Your task to perform on an android device: What is the news today? Image 0: 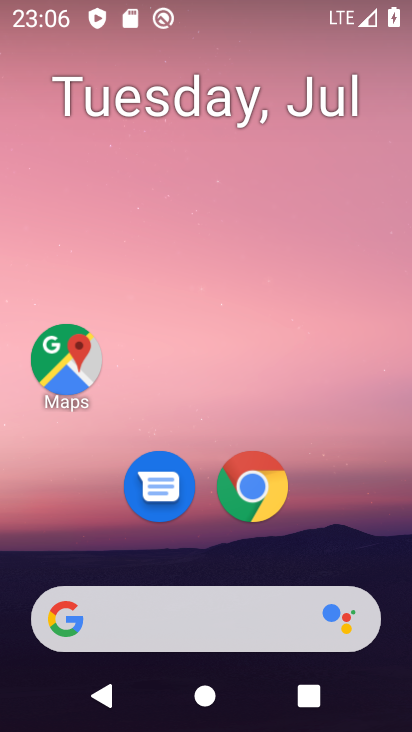
Step 0: press home button
Your task to perform on an android device: What is the news today? Image 1: 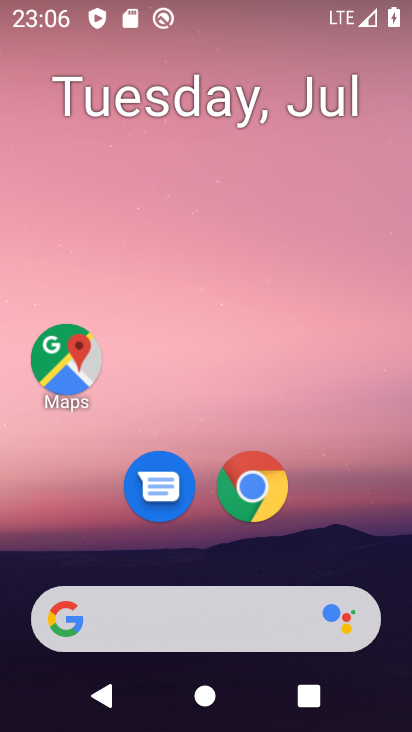
Step 1: drag from (1, 243) to (405, 325)
Your task to perform on an android device: What is the news today? Image 2: 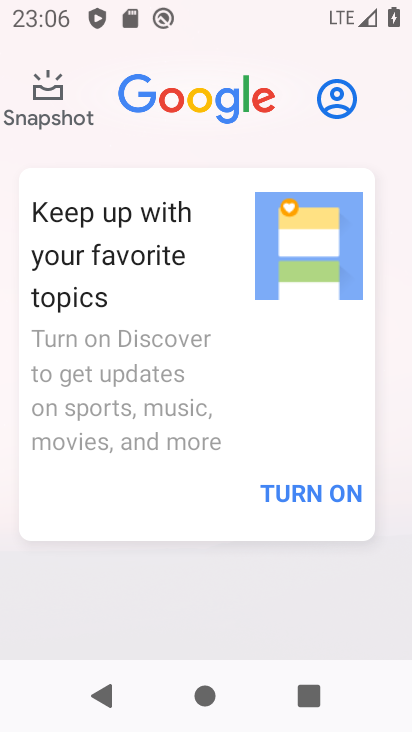
Step 2: drag from (251, 347) to (393, 569)
Your task to perform on an android device: What is the news today? Image 3: 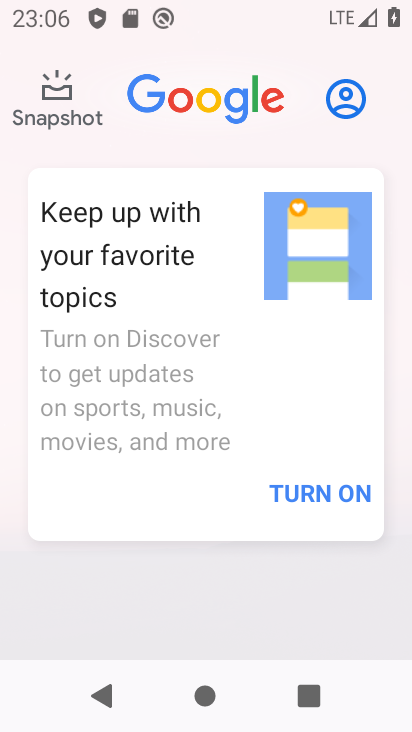
Step 3: click (307, 493)
Your task to perform on an android device: What is the news today? Image 4: 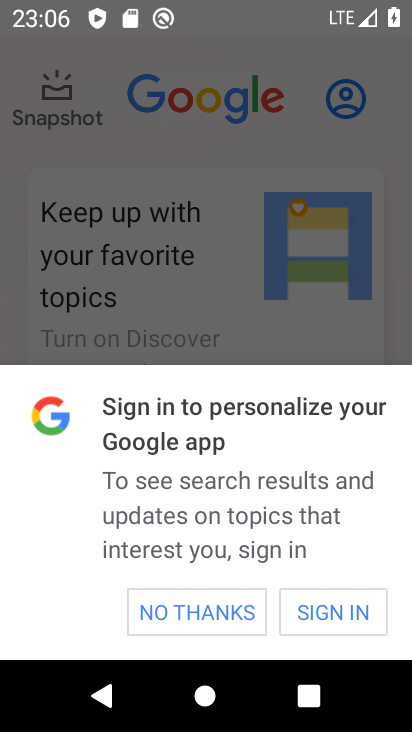
Step 4: click (194, 615)
Your task to perform on an android device: What is the news today? Image 5: 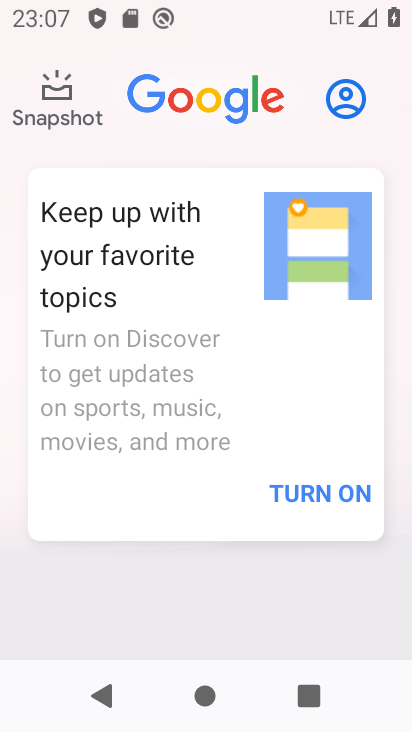
Step 5: task complete